Your task to perform on an android device: Go to Google Image 0: 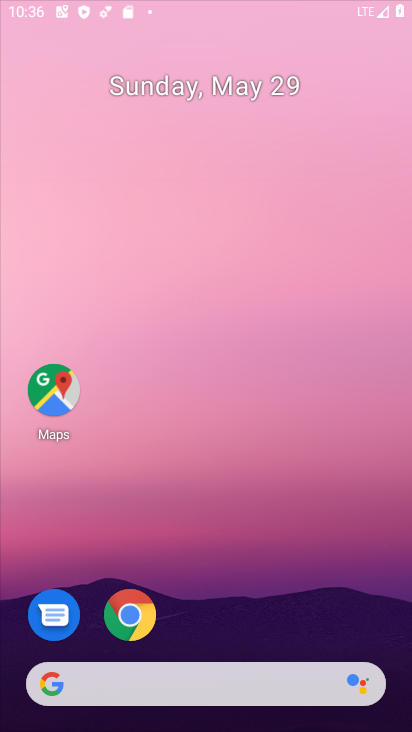
Step 0: drag from (363, 329) to (362, 284)
Your task to perform on an android device: Go to Google Image 1: 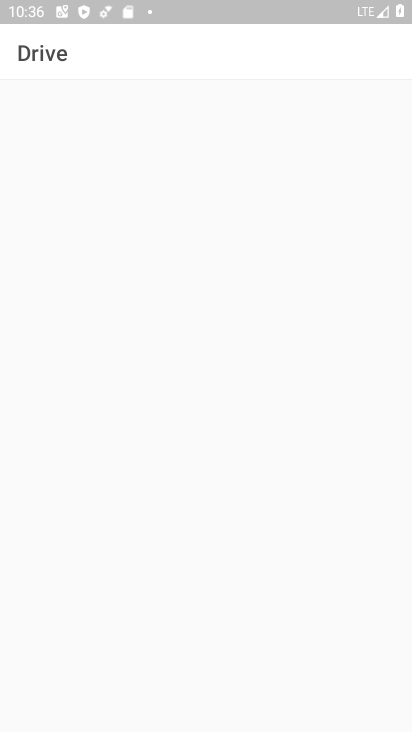
Step 1: press home button
Your task to perform on an android device: Go to Google Image 2: 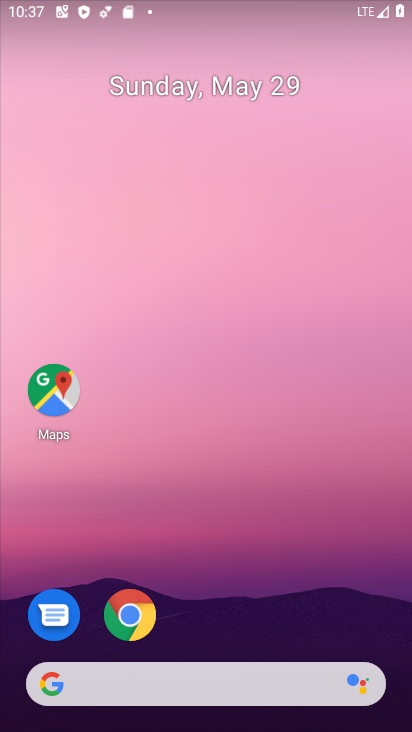
Step 2: drag from (351, 630) to (348, 283)
Your task to perform on an android device: Go to Google Image 3: 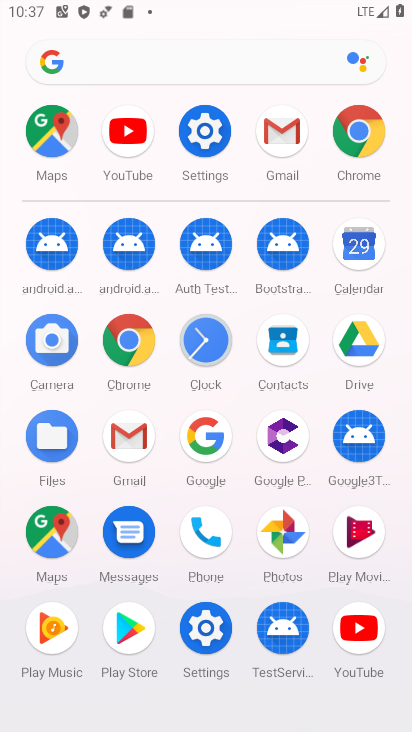
Step 3: click (223, 449)
Your task to perform on an android device: Go to Google Image 4: 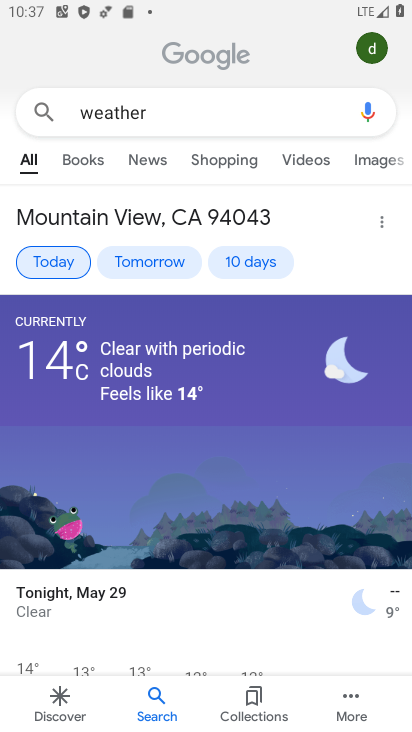
Step 4: task complete